Your task to perform on an android device: Open the phone app and click the voicemail tab. Image 0: 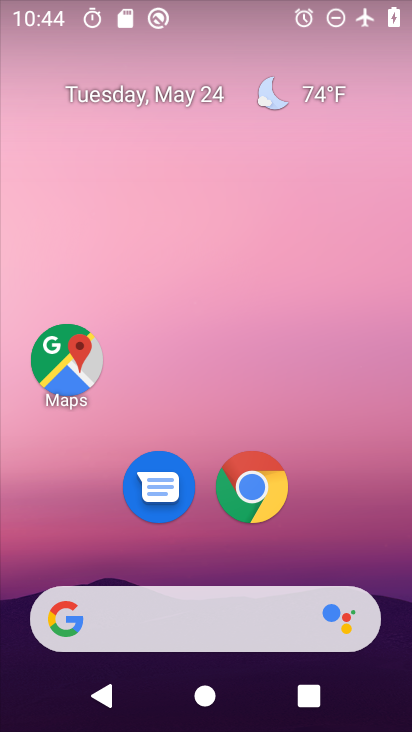
Step 0: drag from (346, 562) to (351, 18)
Your task to perform on an android device: Open the phone app and click the voicemail tab. Image 1: 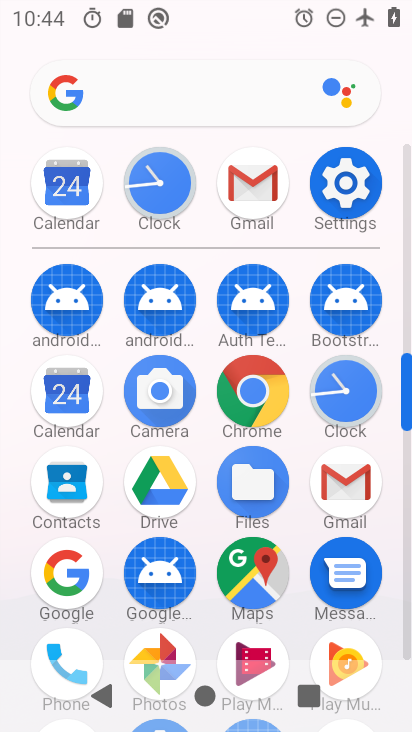
Step 1: click (62, 644)
Your task to perform on an android device: Open the phone app and click the voicemail tab. Image 2: 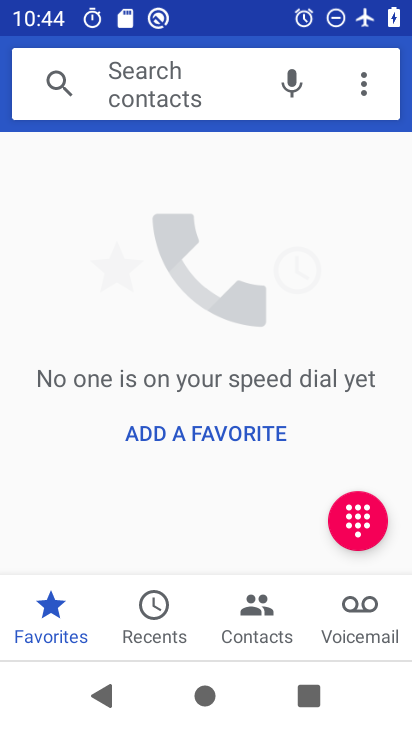
Step 2: click (371, 625)
Your task to perform on an android device: Open the phone app and click the voicemail tab. Image 3: 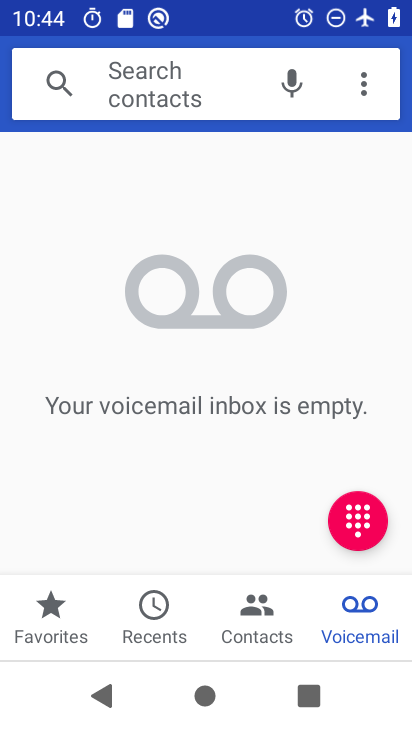
Step 3: task complete